Your task to perform on an android device: toggle notification dots Image 0: 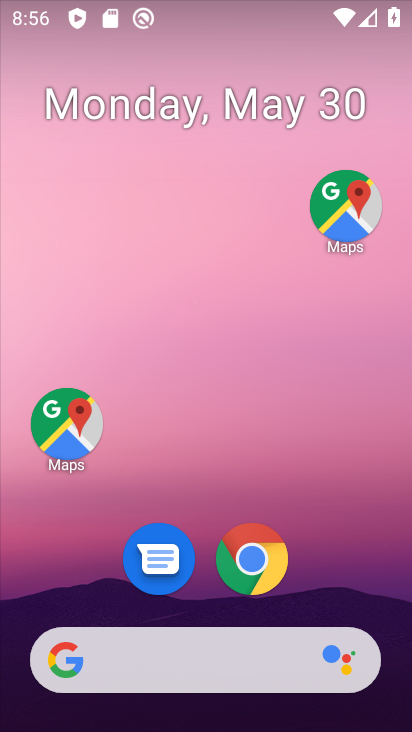
Step 0: drag from (317, 593) to (258, 112)
Your task to perform on an android device: toggle notification dots Image 1: 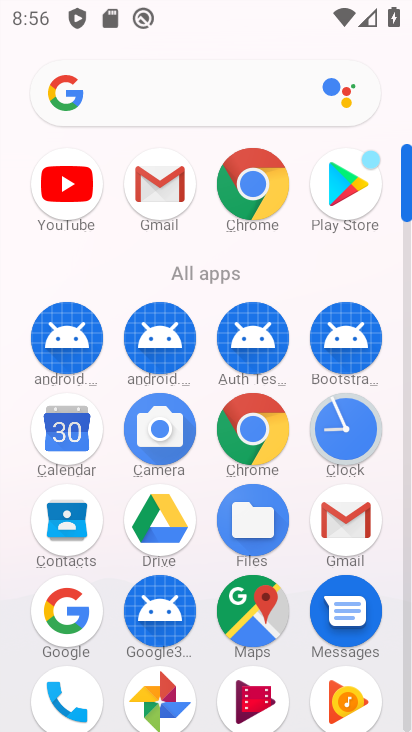
Step 1: drag from (288, 559) to (303, 150)
Your task to perform on an android device: toggle notification dots Image 2: 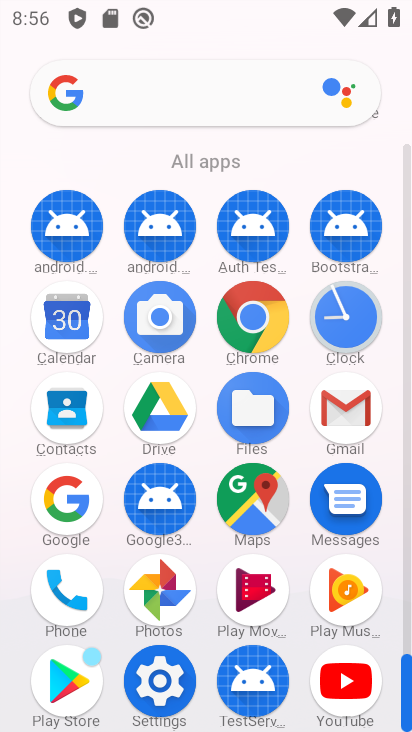
Step 2: click (160, 694)
Your task to perform on an android device: toggle notification dots Image 3: 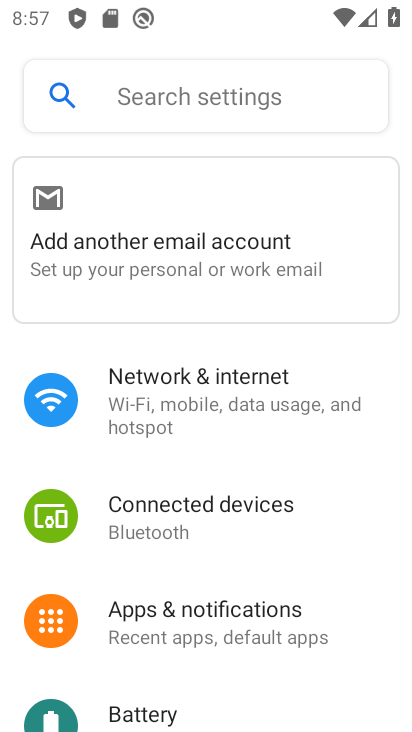
Step 3: drag from (279, 678) to (299, 258)
Your task to perform on an android device: toggle notification dots Image 4: 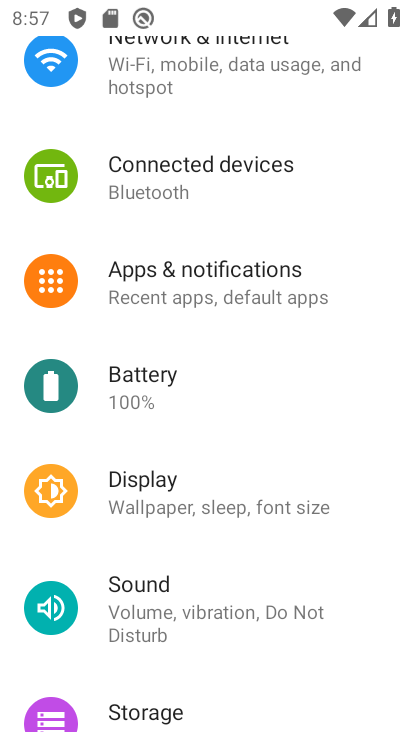
Step 4: click (257, 292)
Your task to perform on an android device: toggle notification dots Image 5: 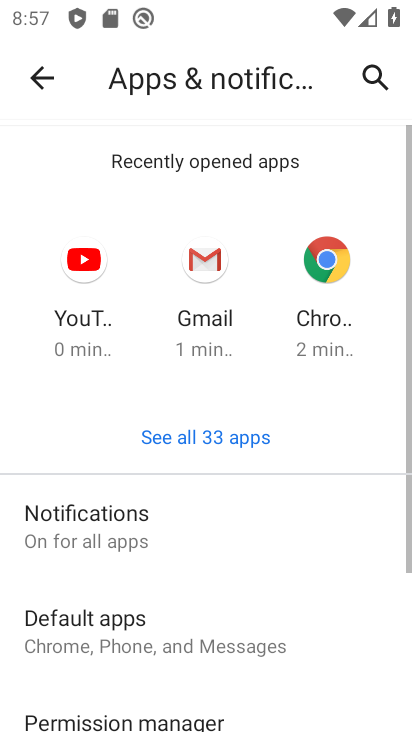
Step 5: drag from (318, 502) to (361, 314)
Your task to perform on an android device: toggle notification dots Image 6: 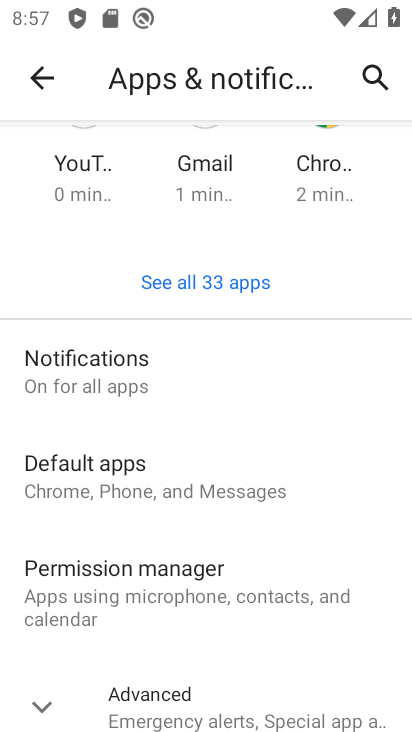
Step 6: click (75, 392)
Your task to perform on an android device: toggle notification dots Image 7: 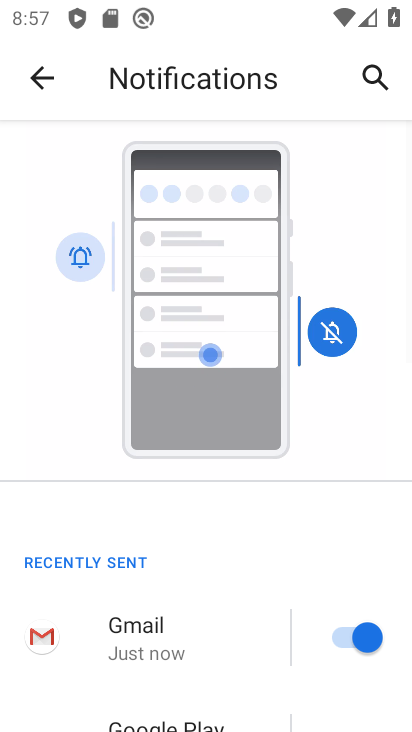
Step 7: drag from (306, 470) to (308, 179)
Your task to perform on an android device: toggle notification dots Image 8: 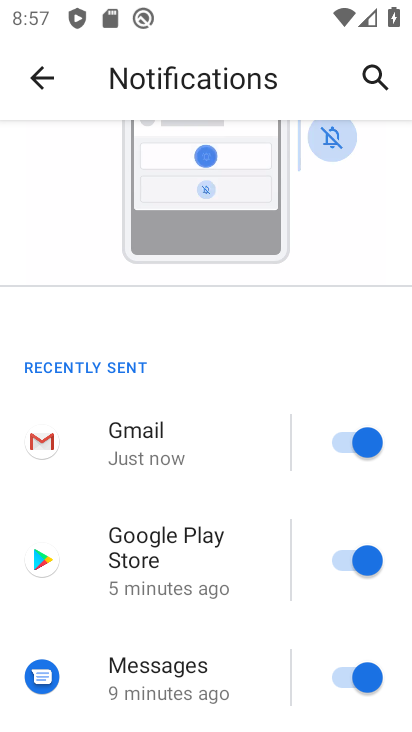
Step 8: drag from (207, 589) to (267, 155)
Your task to perform on an android device: toggle notification dots Image 9: 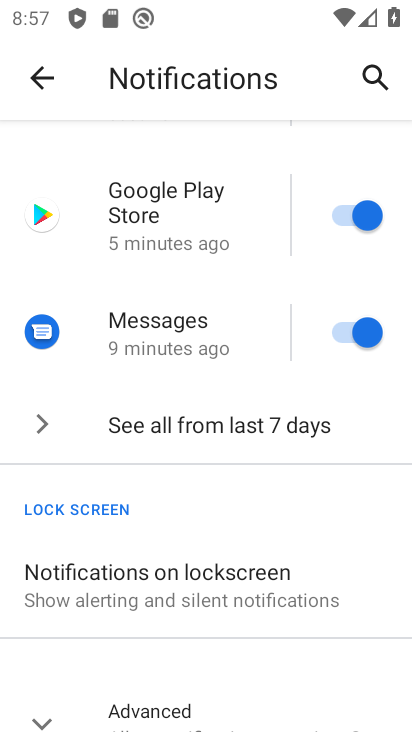
Step 9: drag from (154, 640) to (205, 301)
Your task to perform on an android device: toggle notification dots Image 10: 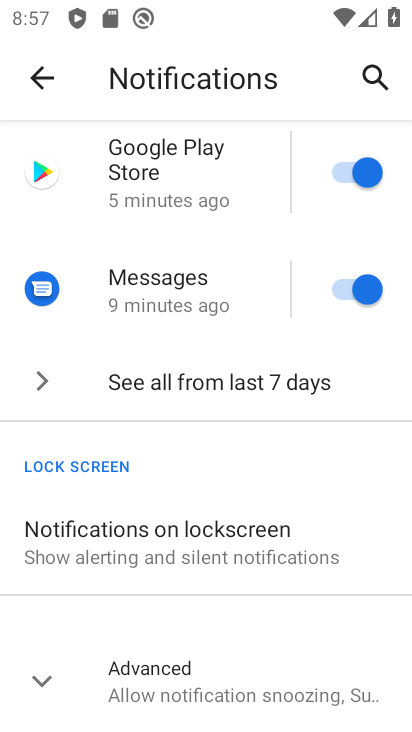
Step 10: click (145, 709)
Your task to perform on an android device: toggle notification dots Image 11: 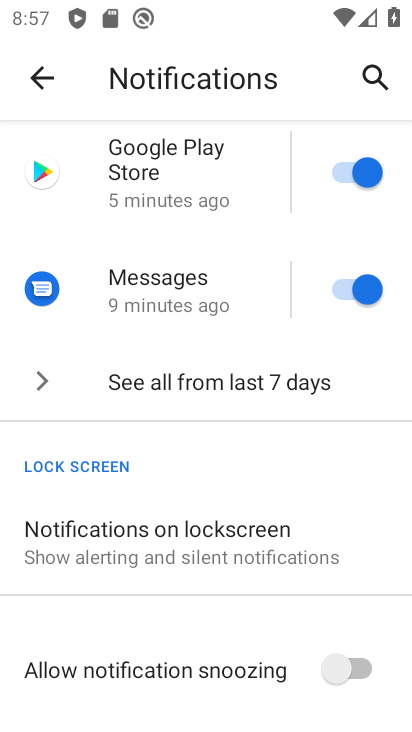
Step 11: drag from (277, 596) to (283, 84)
Your task to perform on an android device: toggle notification dots Image 12: 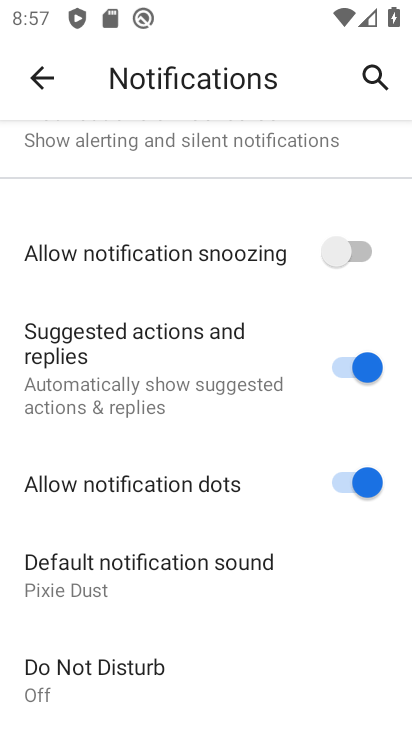
Step 12: click (366, 467)
Your task to perform on an android device: toggle notification dots Image 13: 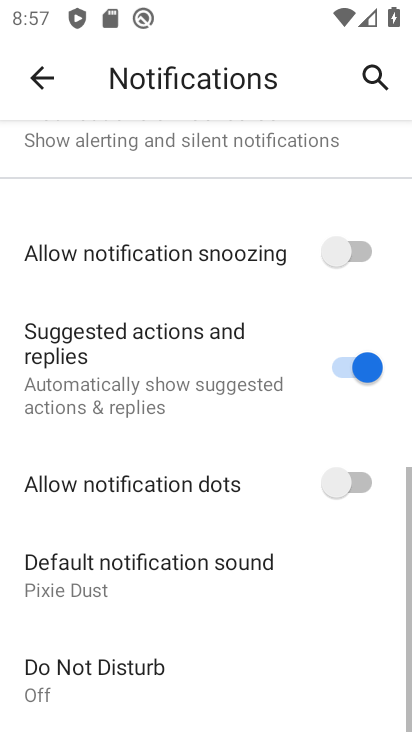
Step 13: click (362, 476)
Your task to perform on an android device: toggle notification dots Image 14: 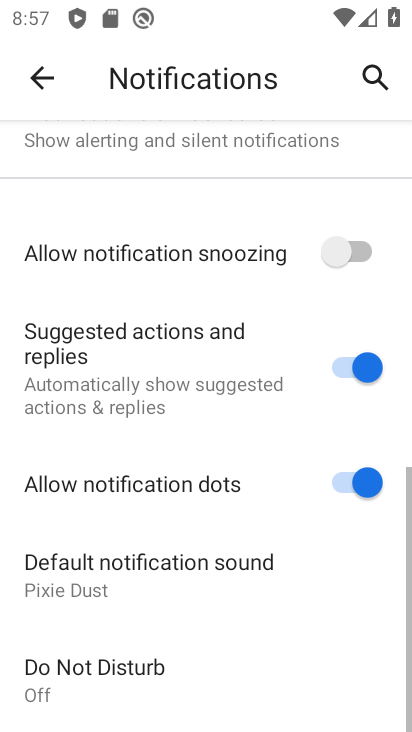
Step 14: click (362, 476)
Your task to perform on an android device: toggle notification dots Image 15: 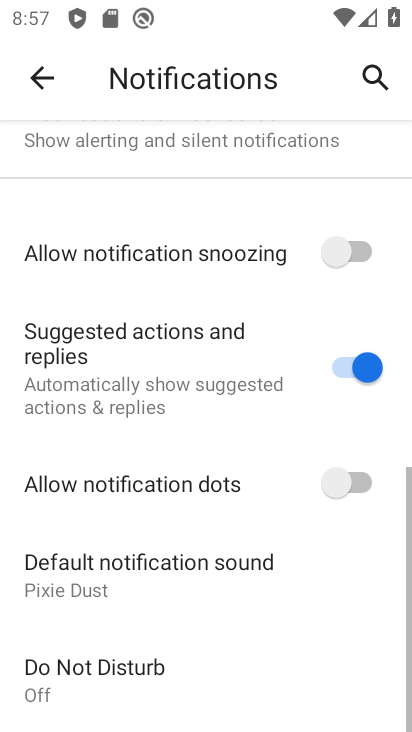
Step 15: task complete